Your task to perform on an android device: turn off location Image 0: 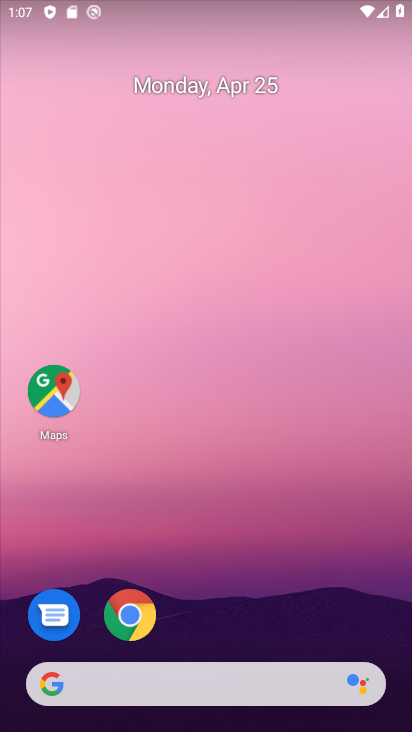
Step 0: drag from (258, 328) to (337, 13)
Your task to perform on an android device: turn off location Image 1: 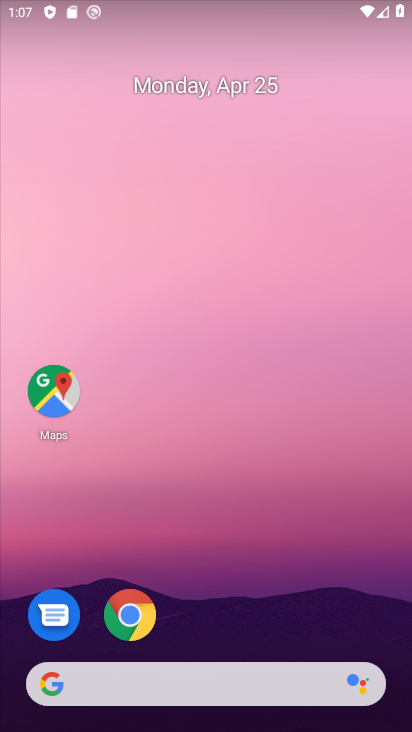
Step 1: drag from (225, 494) to (296, 13)
Your task to perform on an android device: turn off location Image 2: 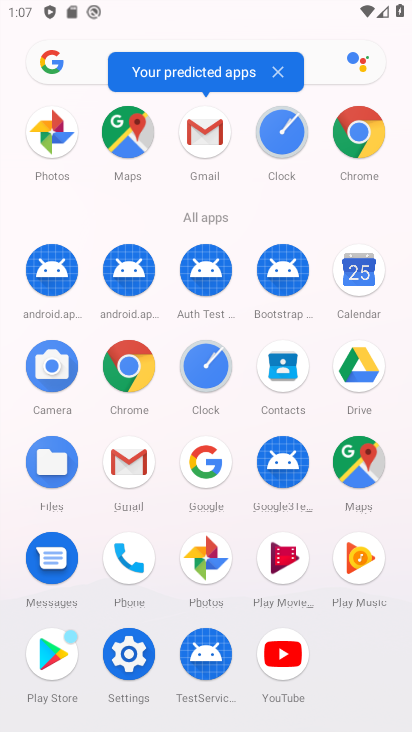
Step 2: click (130, 655)
Your task to perform on an android device: turn off location Image 3: 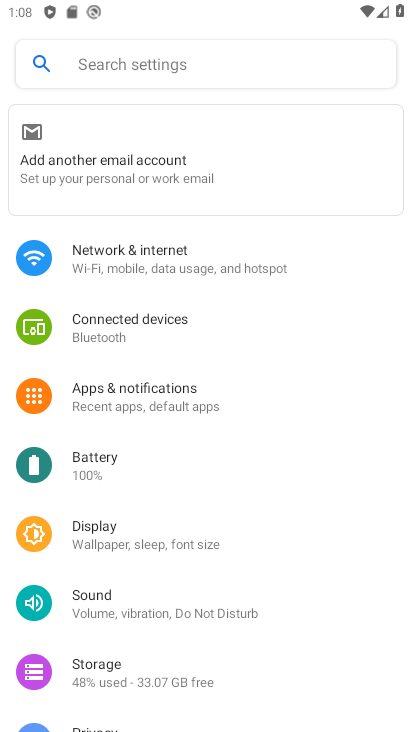
Step 3: drag from (138, 499) to (175, 389)
Your task to perform on an android device: turn off location Image 4: 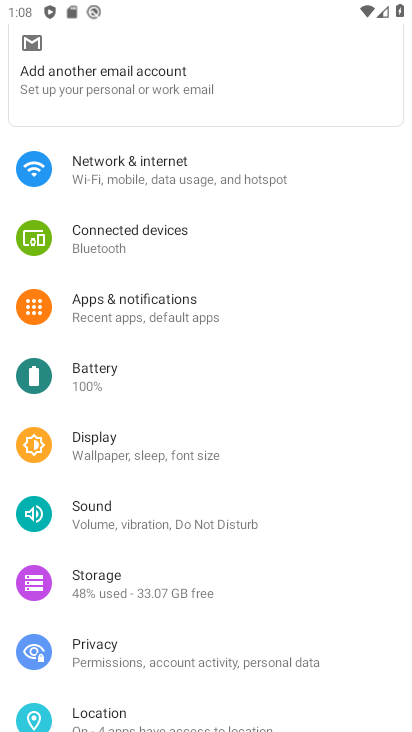
Step 4: drag from (150, 548) to (224, 423)
Your task to perform on an android device: turn off location Image 5: 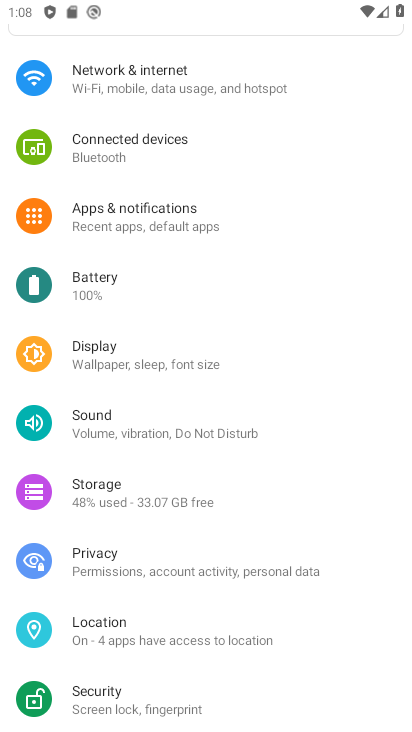
Step 5: click (124, 634)
Your task to perform on an android device: turn off location Image 6: 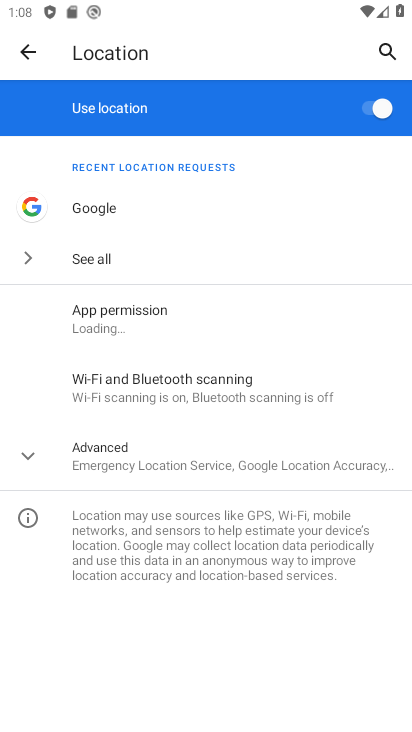
Step 6: click (377, 104)
Your task to perform on an android device: turn off location Image 7: 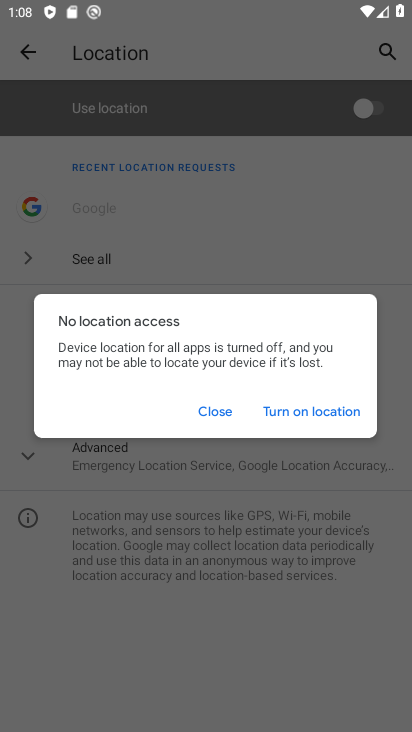
Step 7: click (215, 407)
Your task to perform on an android device: turn off location Image 8: 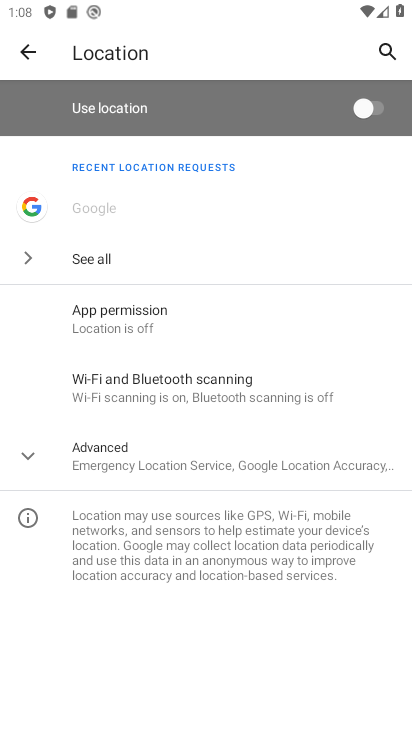
Step 8: task complete